Your task to perform on an android device: Open Google Chrome and open the bookmarks view Image 0: 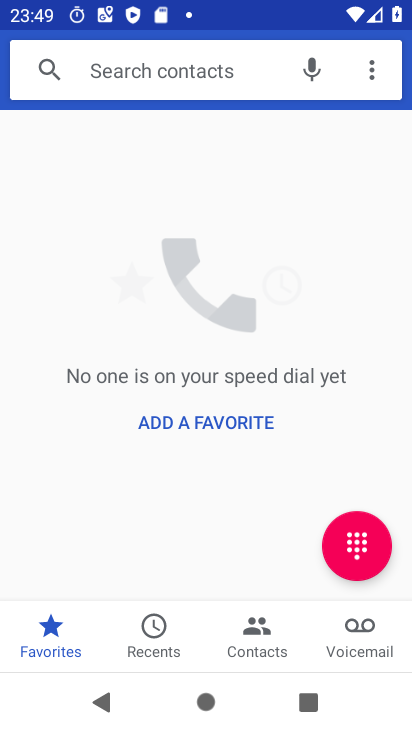
Step 0: press home button
Your task to perform on an android device: Open Google Chrome and open the bookmarks view Image 1: 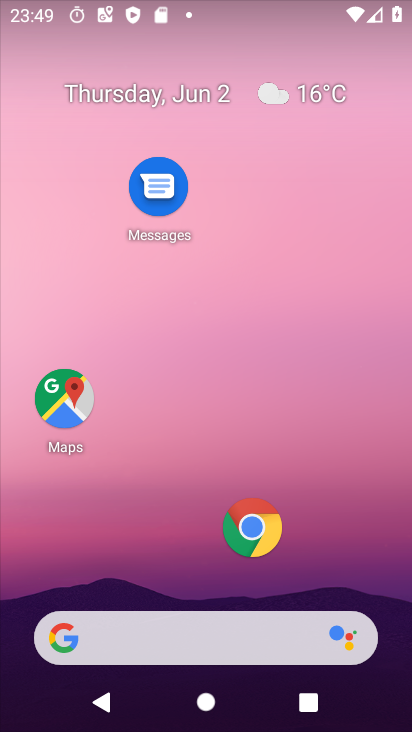
Step 1: click (252, 530)
Your task to perform on an android device: Open Google Chrome and open the bookmarks view Image 2: 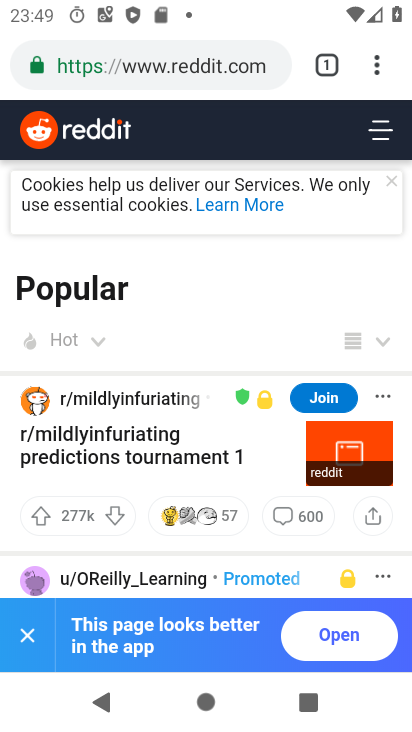
Step 2: click (377, 57)
Your task to perform on an android device: Open Google Chrome and open the bookmarks view Image 3: 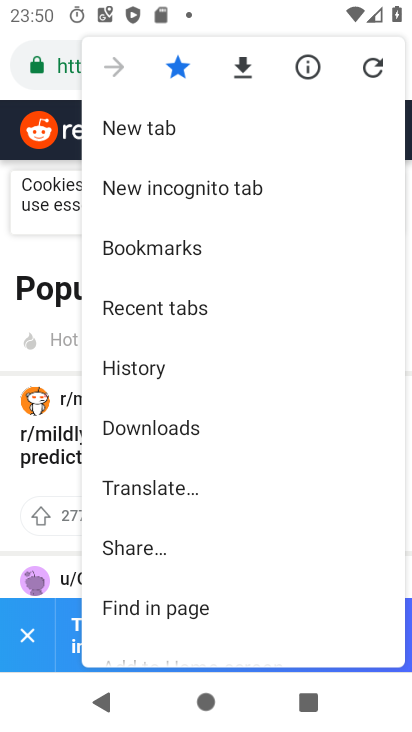
Step 3: click (239, 594)
Your task to perform on an android device: Open Google Chrome and open the bookmarks view Image 4: 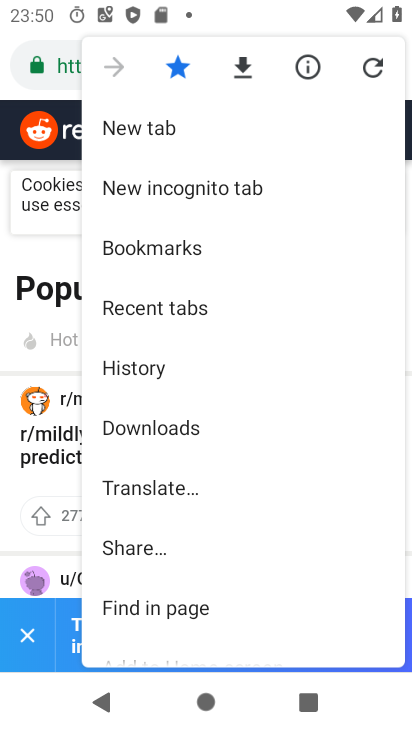
Step 4: click (198, 238)
Your task to perform on an android device: Open Google Chrome and open the bookmarks view Image 5: 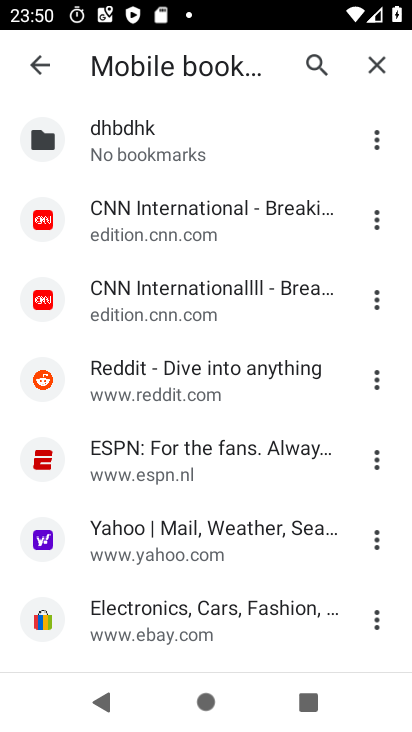
Step 5: task complete